Your task to perform on an android device: turn off translation in the chrome app Image 0: 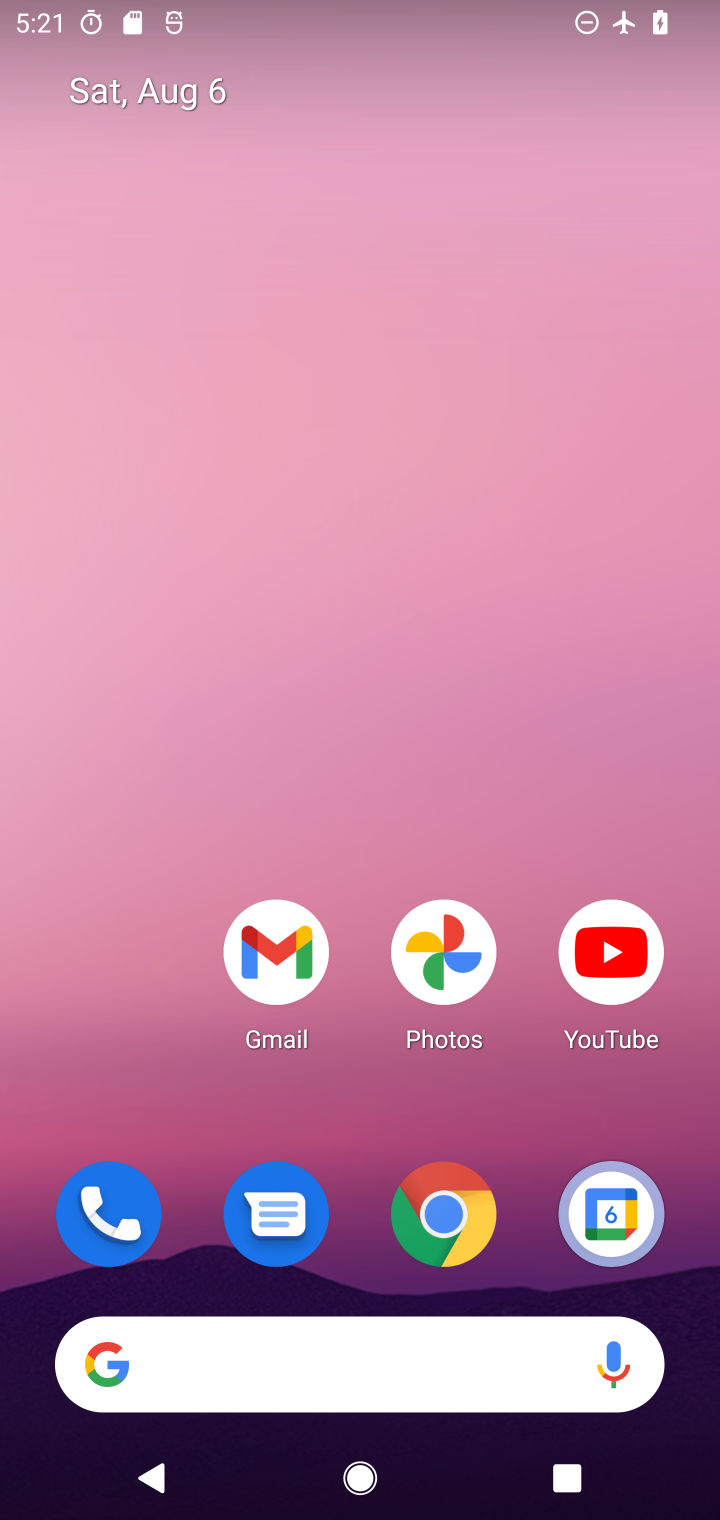
Step 0: click (439, 1219)
Your task to perform on an android device: turn off translation in the chrome app Image 1: 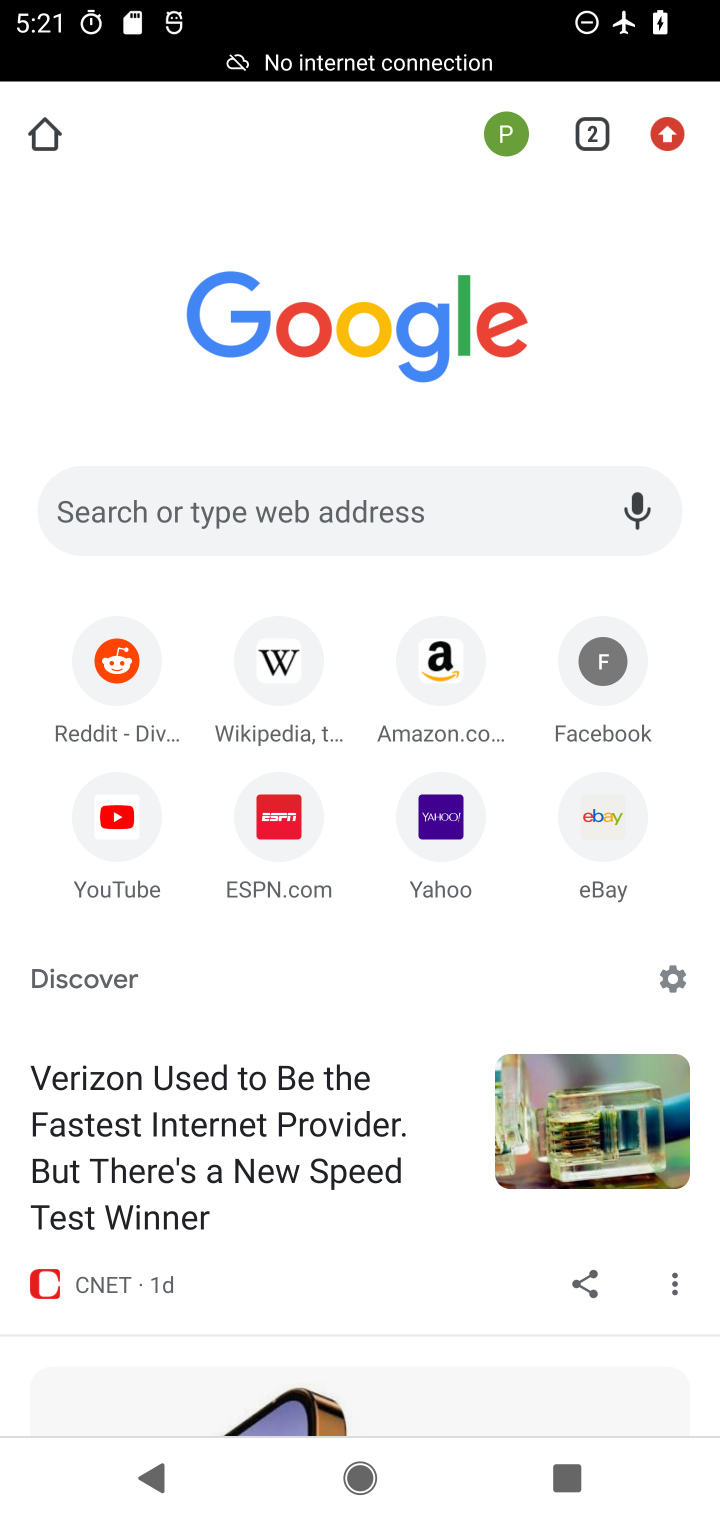
Step 1: click (672, 190)
Your task to perform on an android device: turn off translation in the chrome app Image 2: 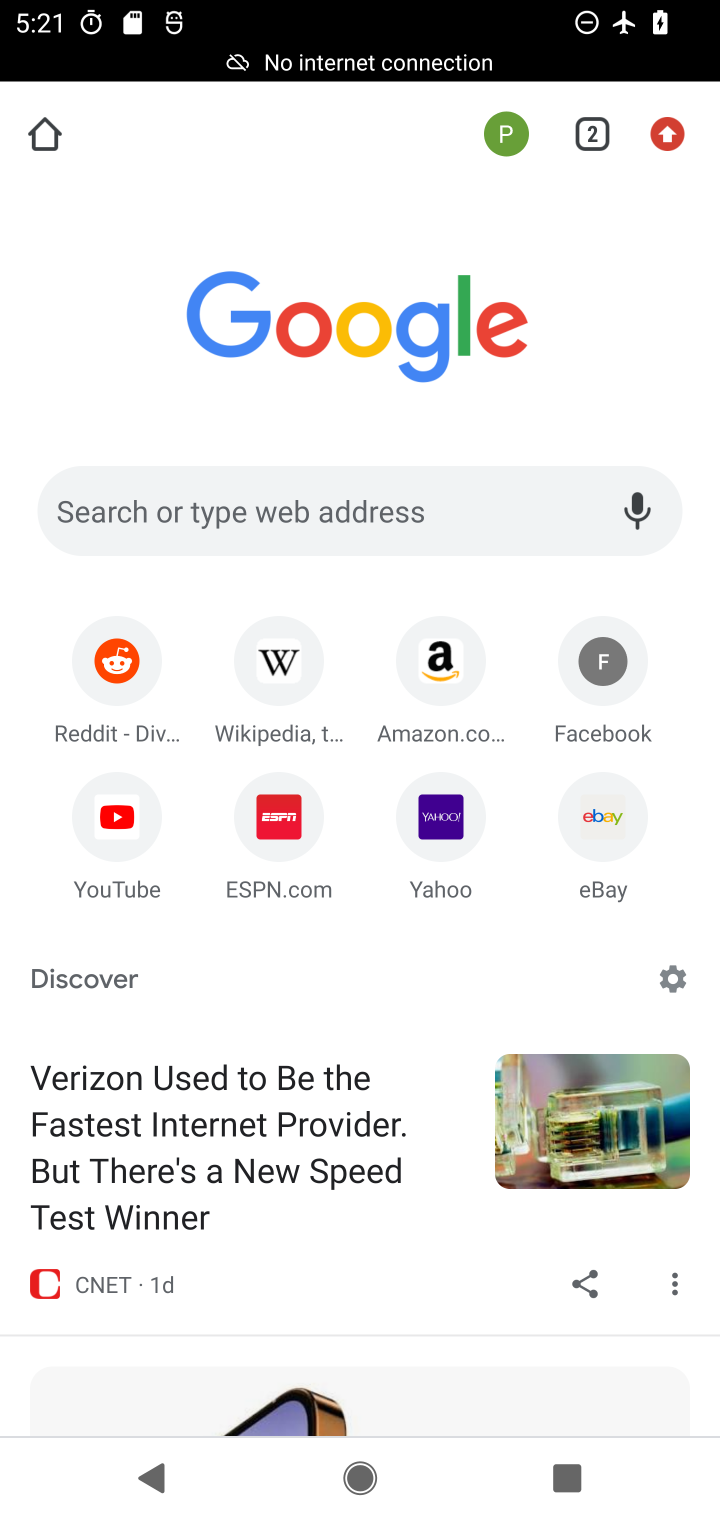
Step 2: click (659, 130)
Your task to perform on an android device: turn off translation in the chrome app Image 3: 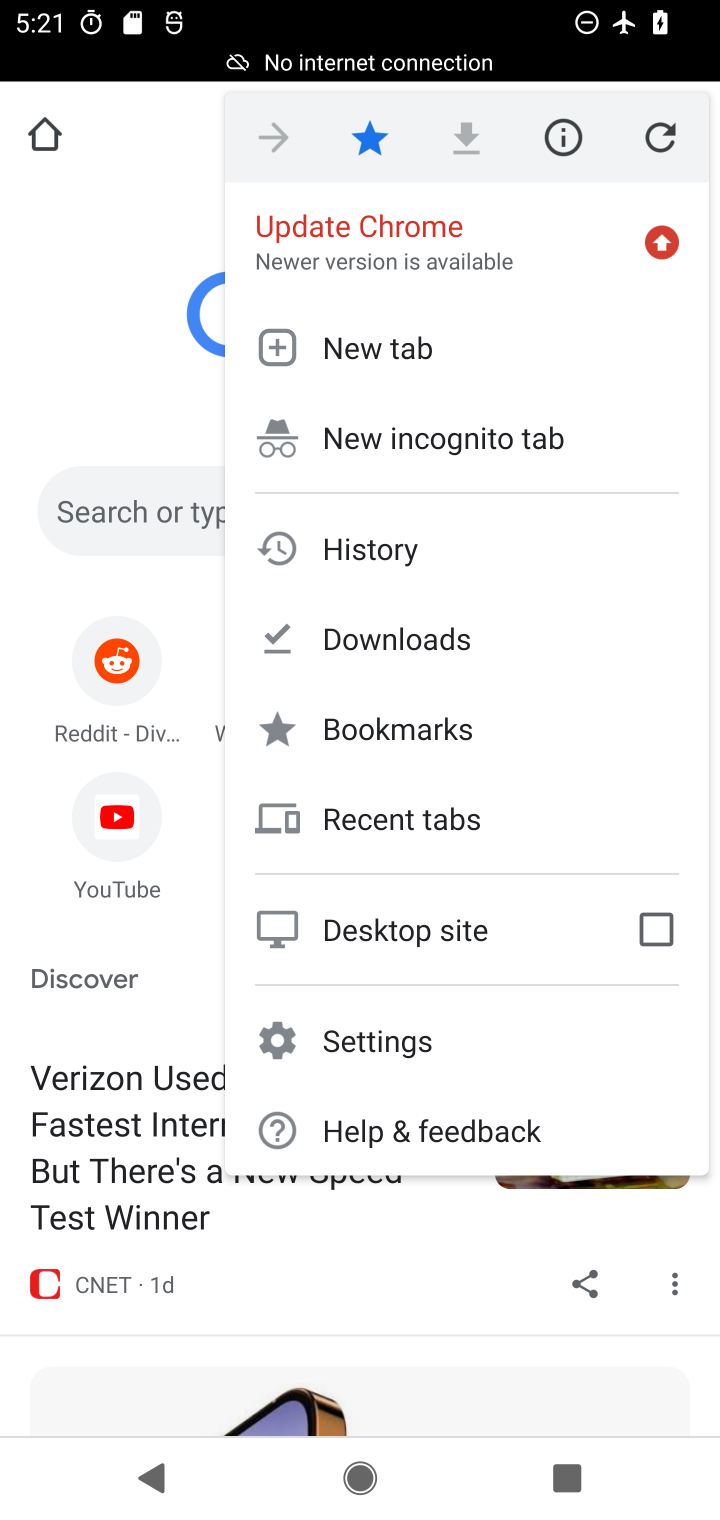
Step 3: click (342, 1037)
Your task to perform on an android device: turn off translation in the chrome app Image 4: 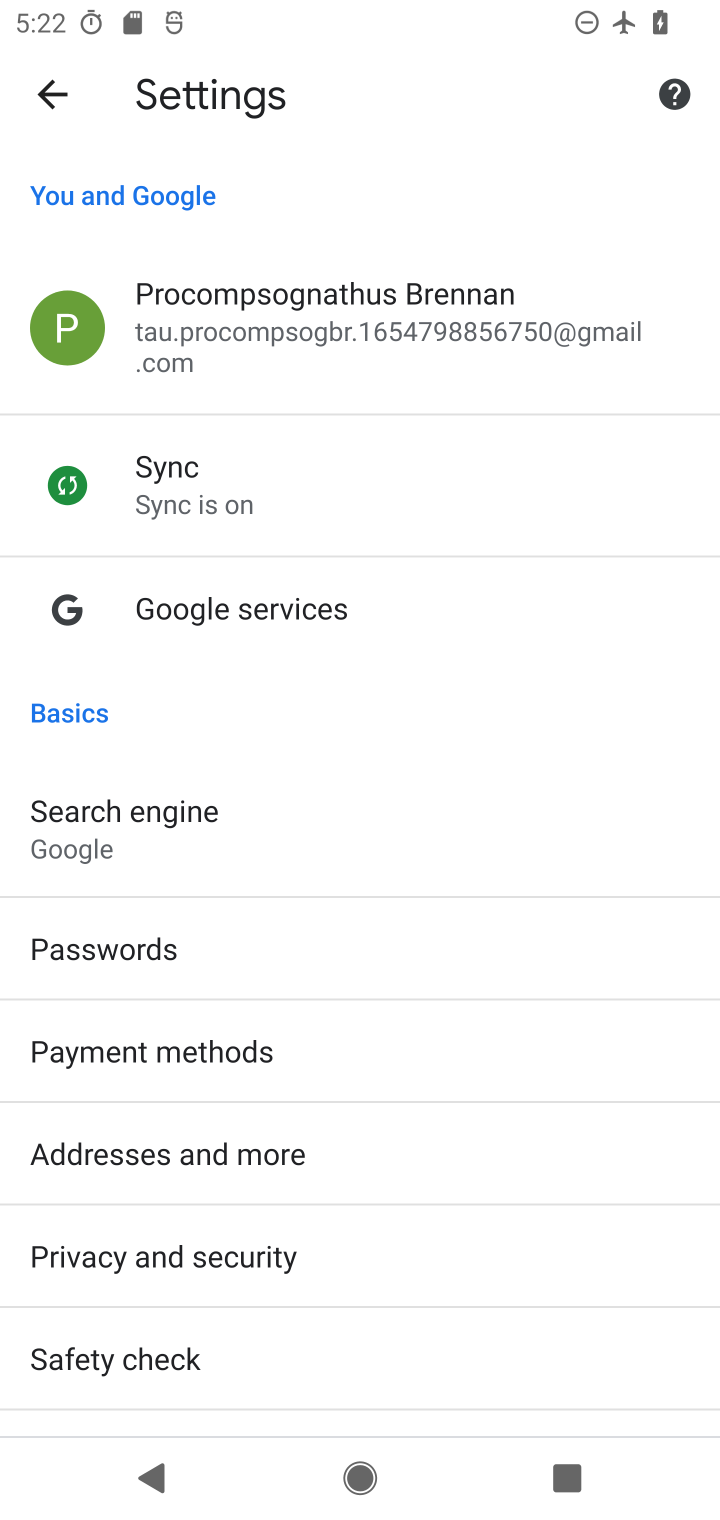
Step 4: drag from (201, 1319) to (180, 884)
Your task to perform on an android device: turn off translation in the chrome app Image 5: 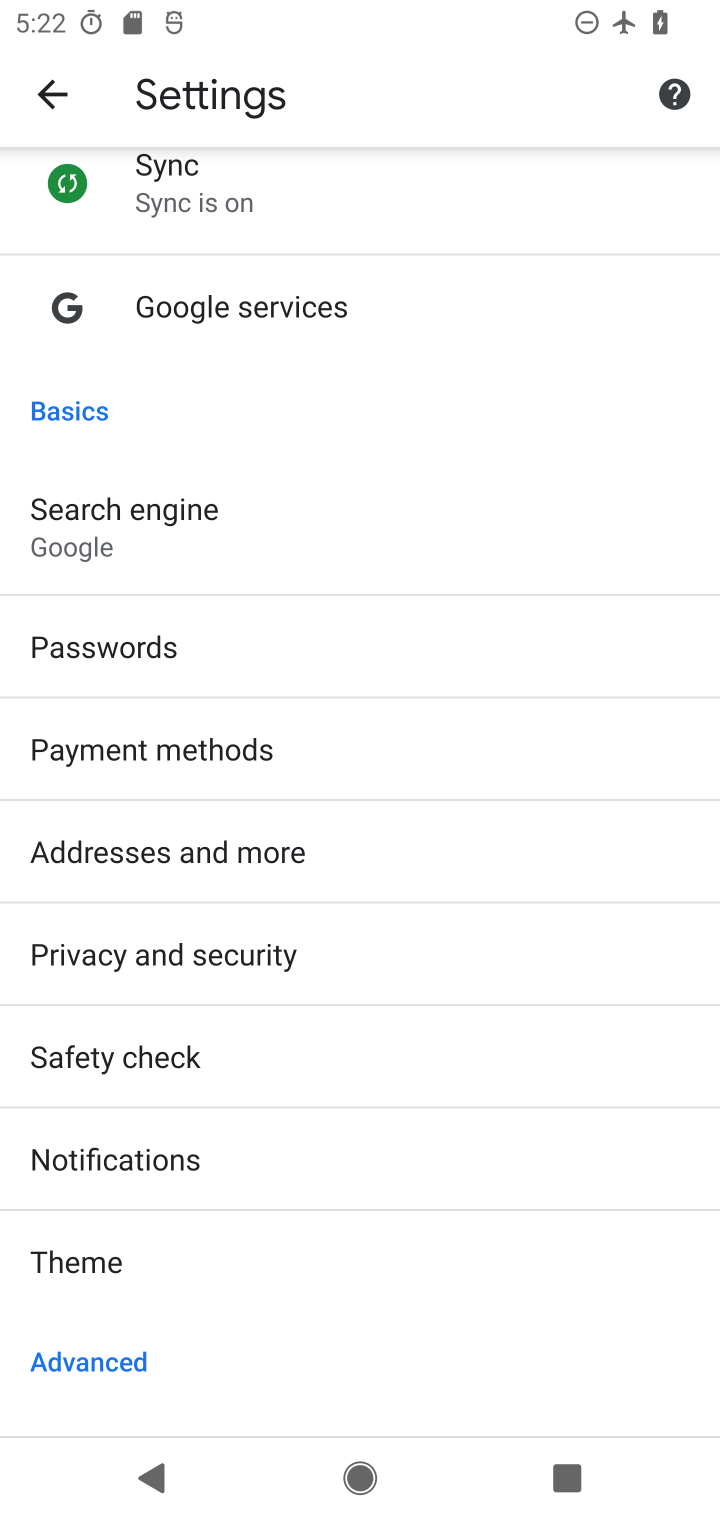
Step 5: drag from (143, 1235) to (127, 579)
Your task to perform on an android device: turn off translation in the chrome app Image 6: 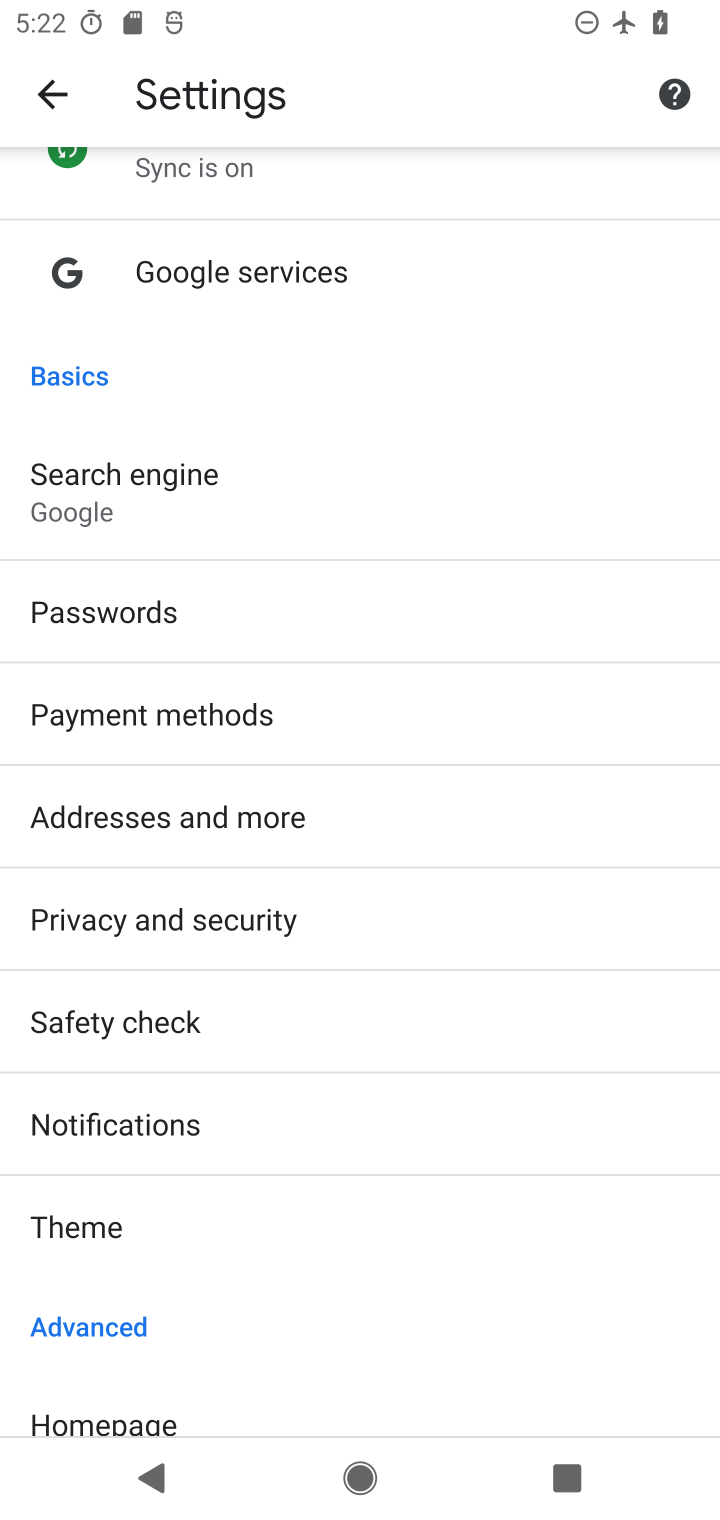
Step 6: drag from (177, 1220) to (231, 552)
Your task to perform on an android device: turn off translation in the chrome app Image 7: 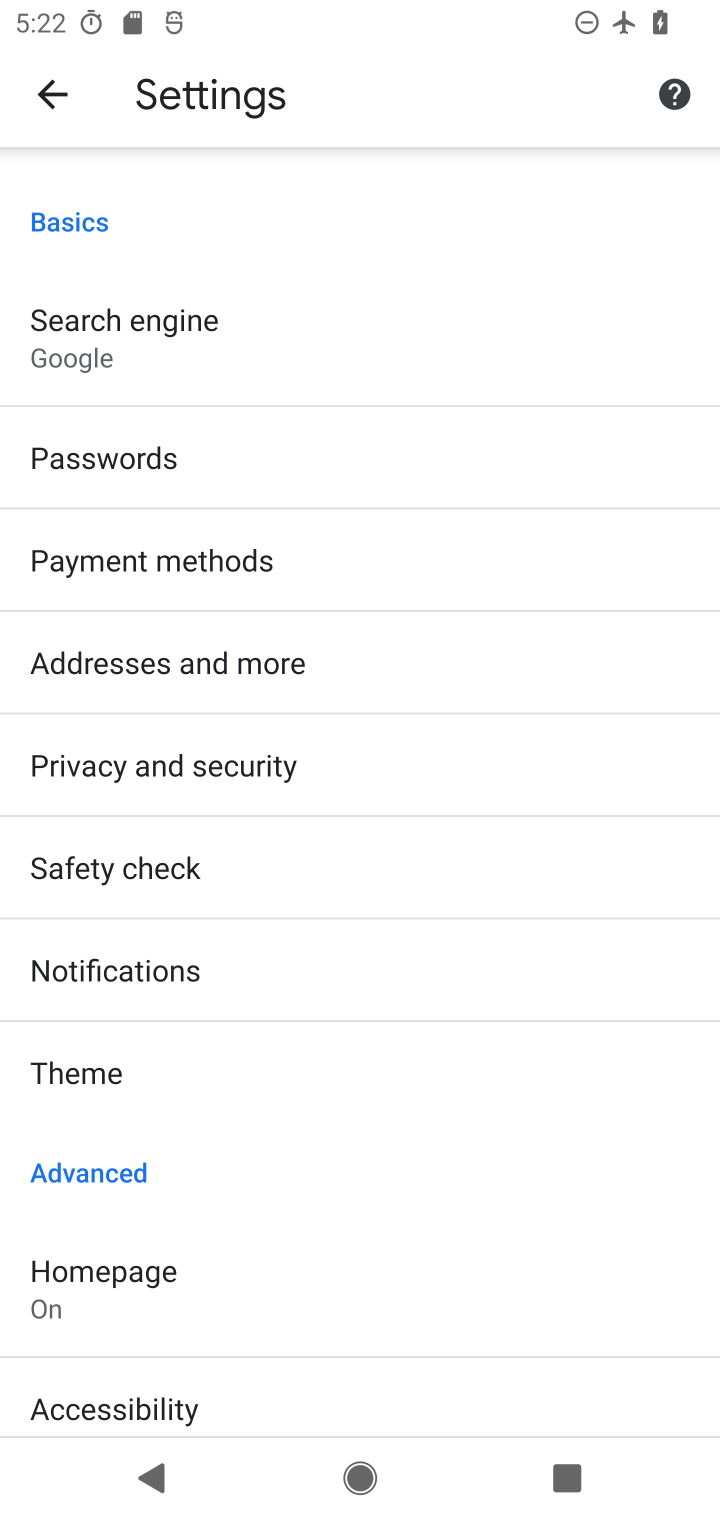
Step 7: drag from (253, 1102) to (315, 592)
Your task to perform on an android device: turn off translation in the chrome app Image 8: 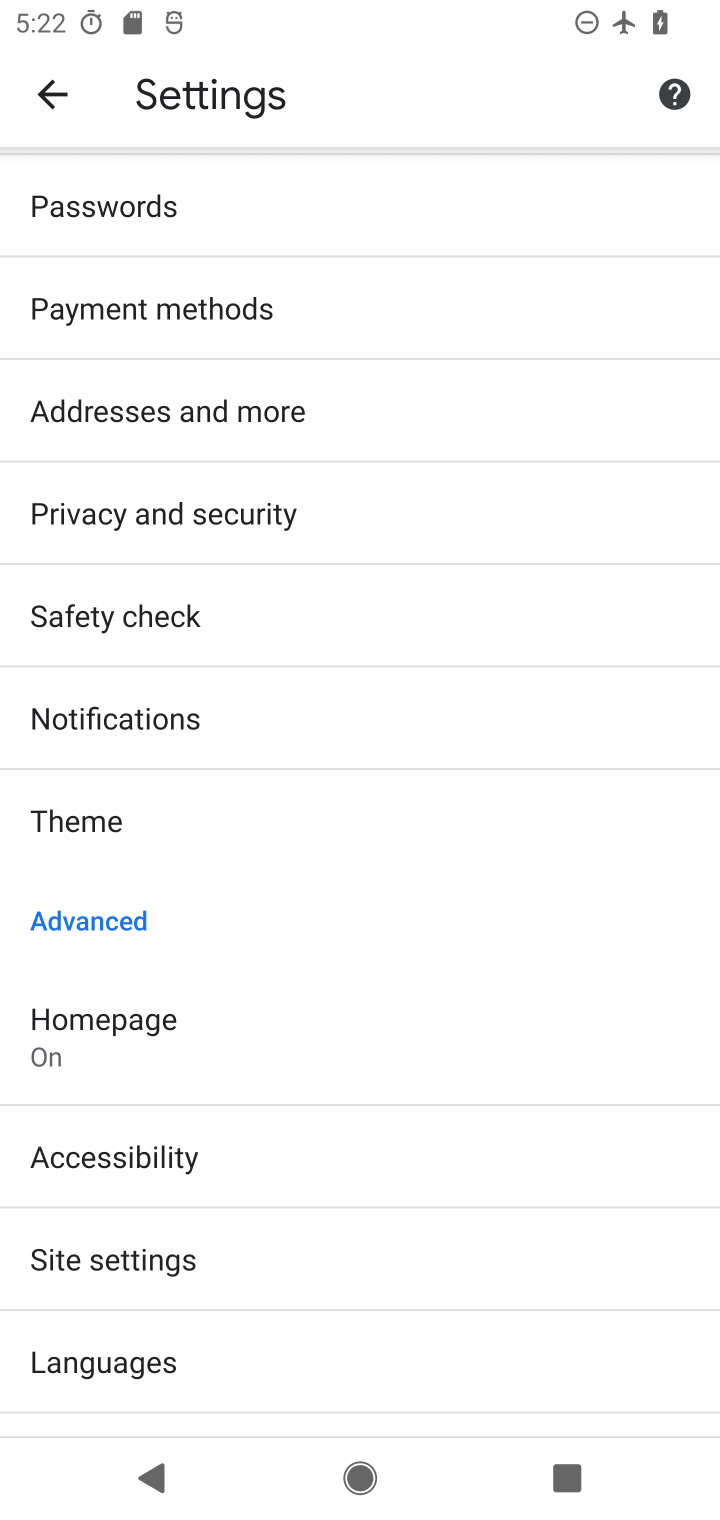
Step 8: click (128, 1360)
Your task to perform on an android device: turn off translation in the chrome app Image 9: 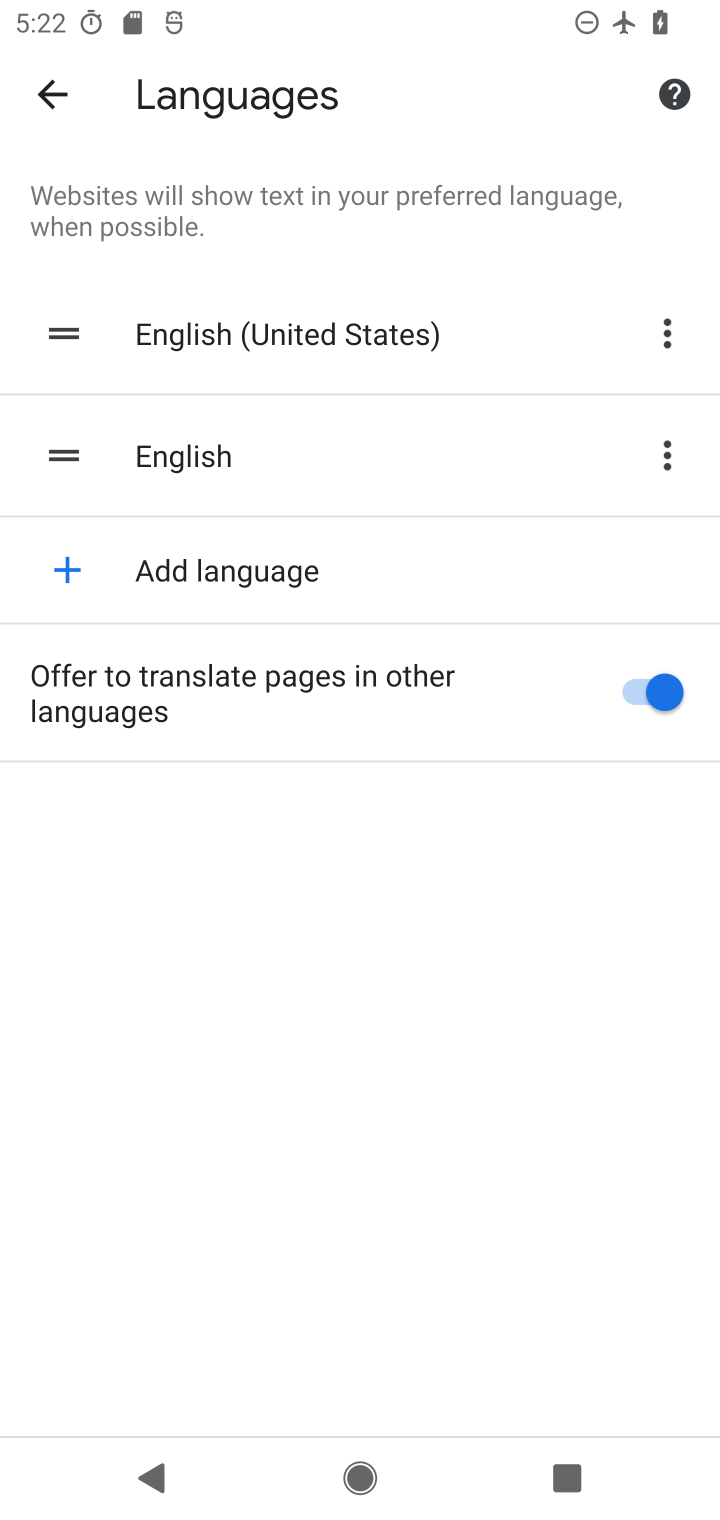
Step 9: click (607, 704)
Your task to perform on an android device: turn off translation in the chrome app Image 10: 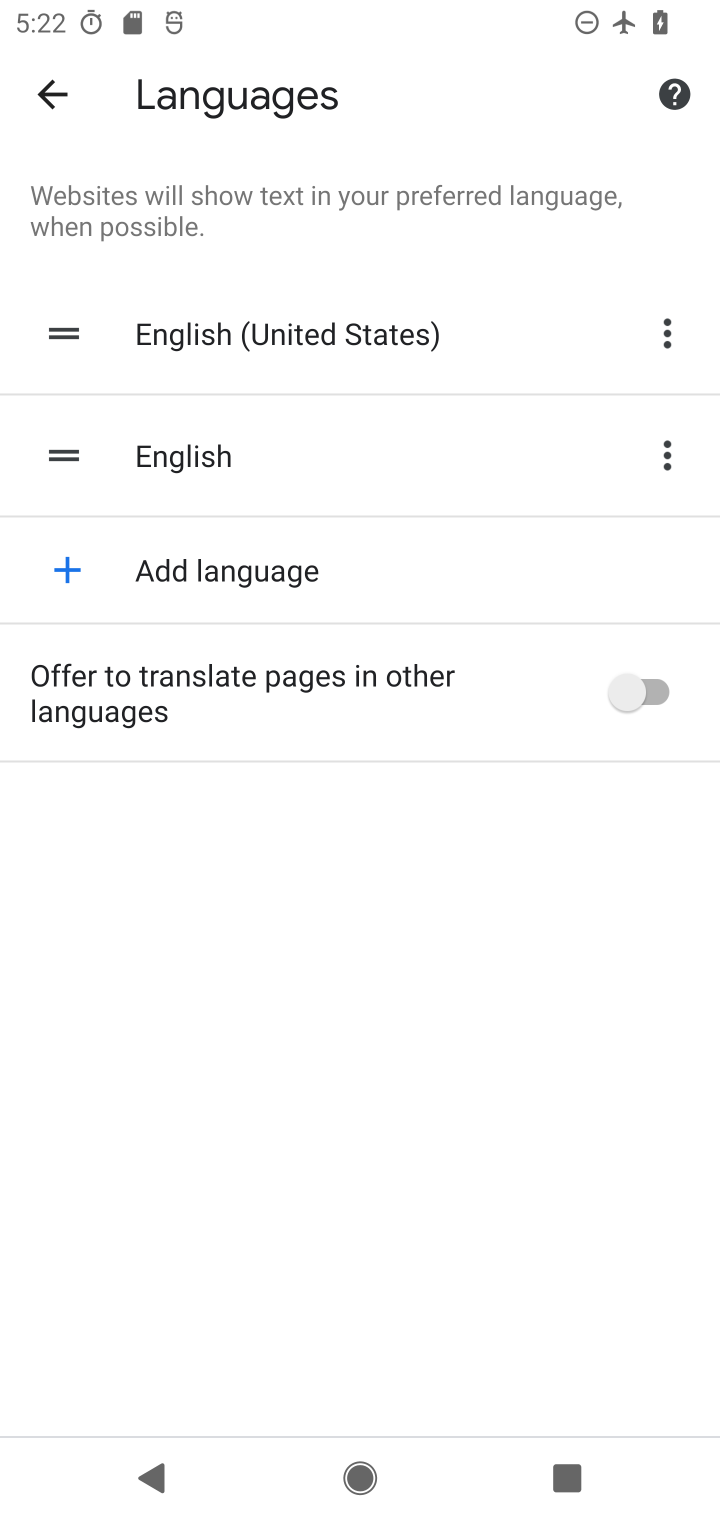
Step 10: task complete